Your task to perform on an android device: check android version Image 0: 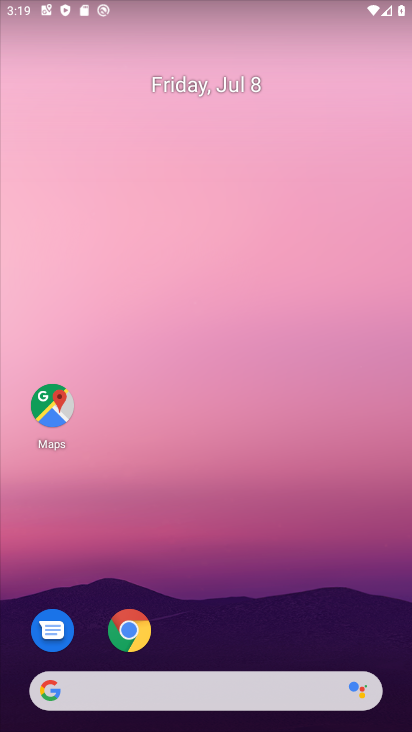
Step 0: drag from (283, 626) to (245, 210)
Your task to perform on an android device: check android version Image 1: 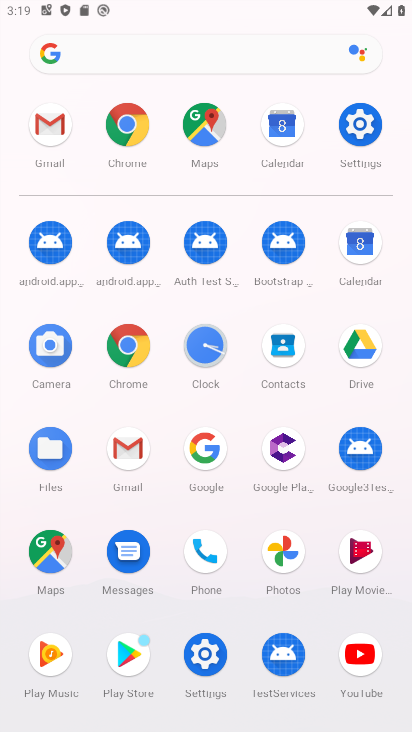
Step 1: click (348, 165)
Your task to perform on an android device: check android version Image 2: 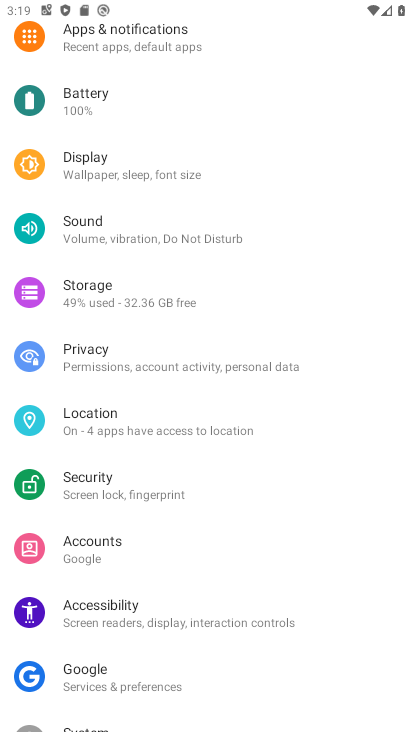
Step 2: drag from (191, 564) to (191, 200)
Your task to perform on an android device: check android version Image 3: 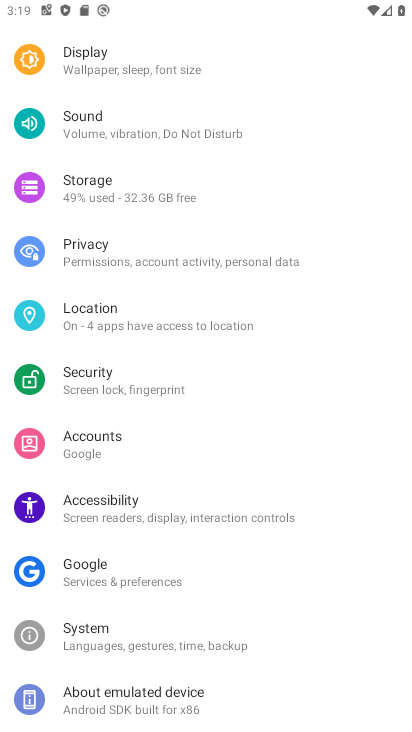
Step 3: click (236, 706)
Your task to perform on an android device: check android version Image 4: 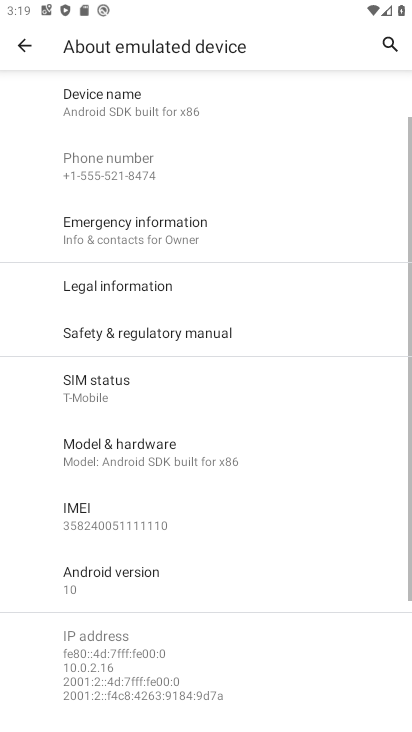
Step 4: task complete